Your task to perform on an android device: turn on translation in the chrome app Image 0: 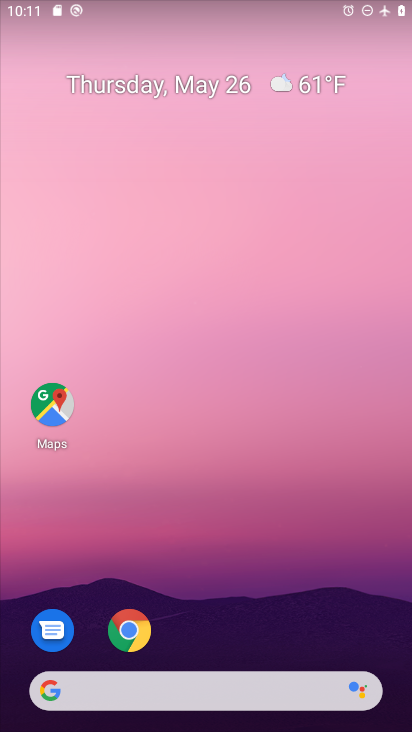
Step 0: click (144, 623)
Your task to perform on an android device: turn on translation in the chrome app Image 1: 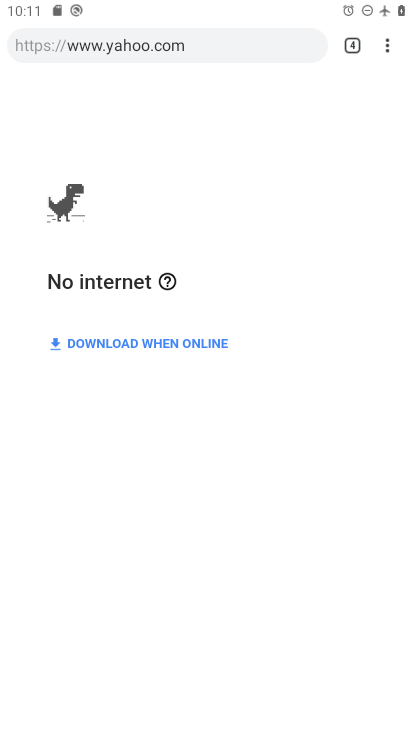
Step 1: click (381, 41)
Your task to perform on an android device: turn on translation in the chrome app Image 2: 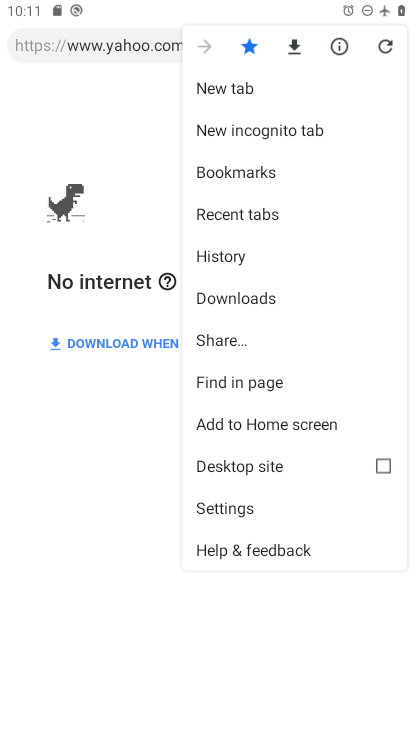
Step 2: click (203, 510)
Your task to perform on an android device: turn on translation in the chrome app Image 3: 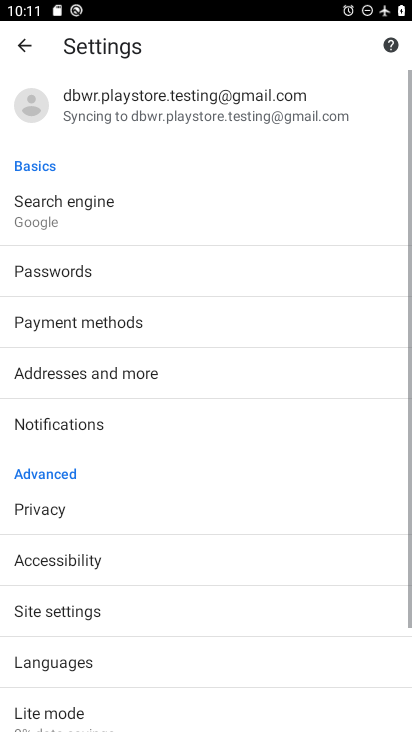
Step 3: click (203, 510)
Your task to perform on an android device: turn on translation in the chrome app Image 4: 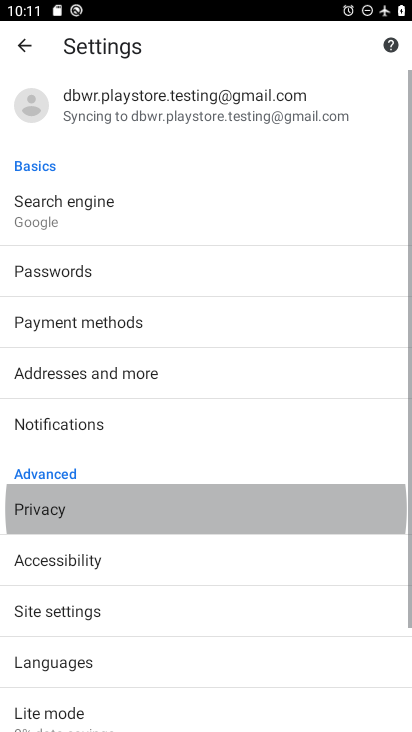
Step 4: drag from (203, 510) to (189, 245)
Your task to perform on an android device: turn on translation in the chrome app Image 5: 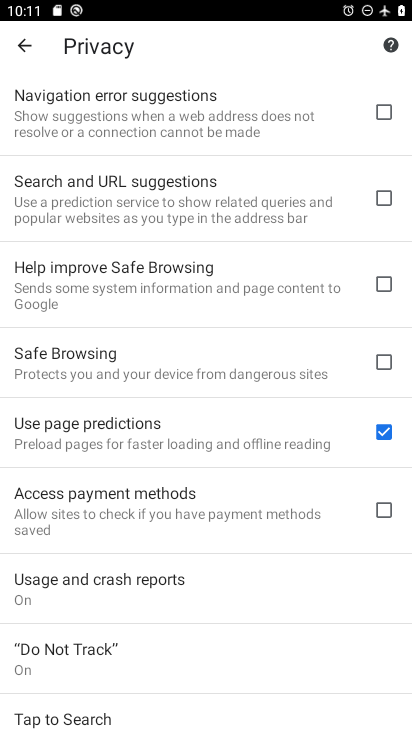
Step 5: click (35, 34)
Your task to perform on an android device: turn on translation in the chrome app Image 6: 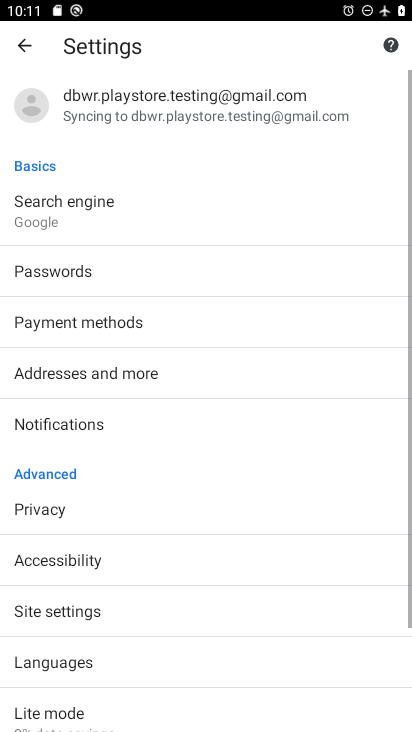
Step 6: drag from (118, 701) to (130, 360)
Your task to perform on an android device: turn on translation in the chrome app Image 7: 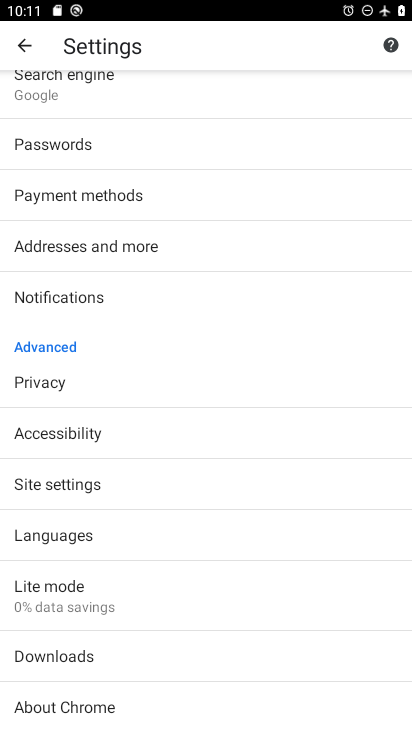
Step 7: click (56, 523)
Your task to perform on an android device: turn on translation in the chrome app Image 8: 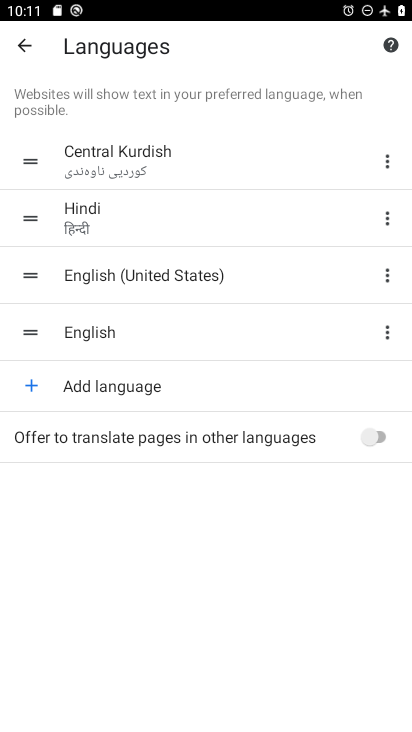
Step 8: click (370, 429)
Your task to perform on an android device: turn on translation in the chrome app Image 9: 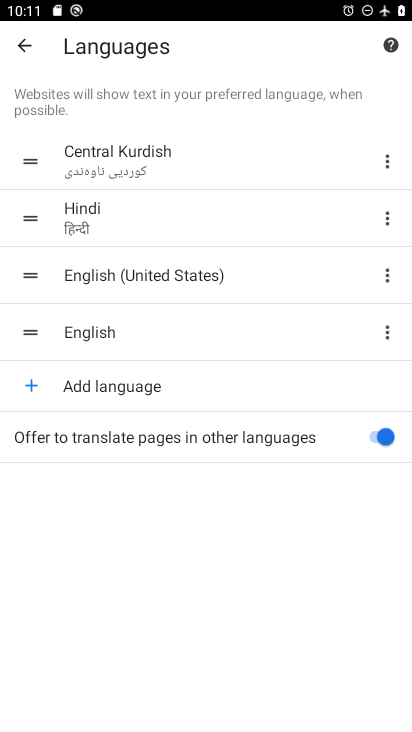
Step 9: task complete